Your task to perform on an android device: install app "DoorDash - Food Delivery" Image 0: 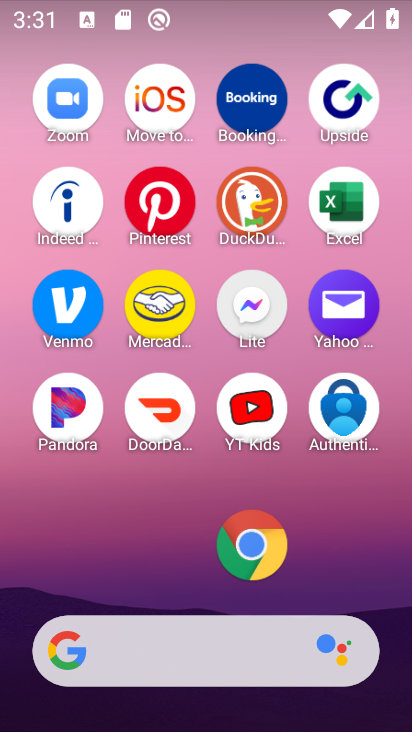
Step 0: drag from (125, 545) to (277, 0)
Your task to perform on an android device: install app "DoorDash - Food Delivery" Image 1: 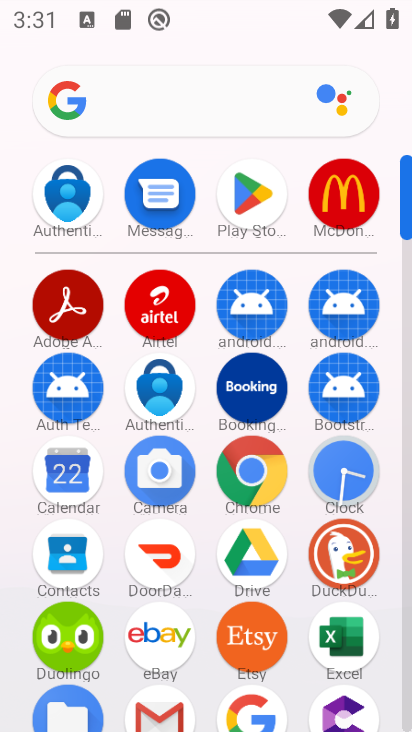
Step 1: click (253, 190)
Your task to perform on an android device: install app "DoorDash - Food Delivery" Image 2: 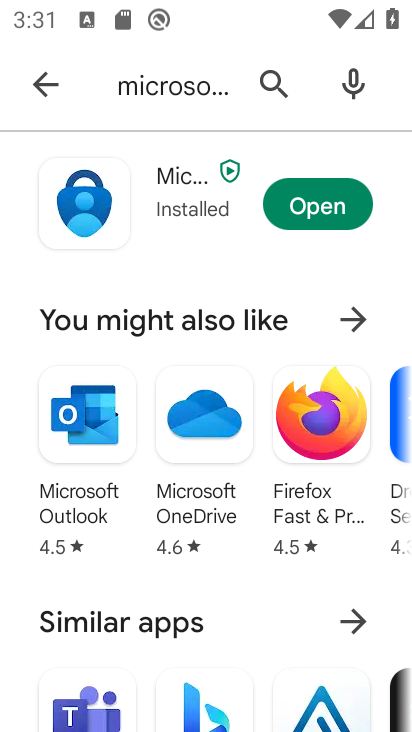
Step 2: click (270, 82)
Your task to perform on an android device: install app "DoorDash - Food Delivery" Image 3: 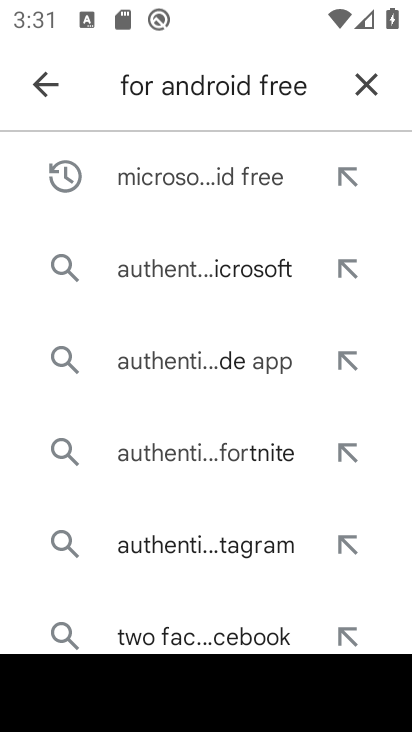
Step 3: click (371, 62)
Your task to perform on an android device: install app "DoorDash - Food Delivery" Image 4: 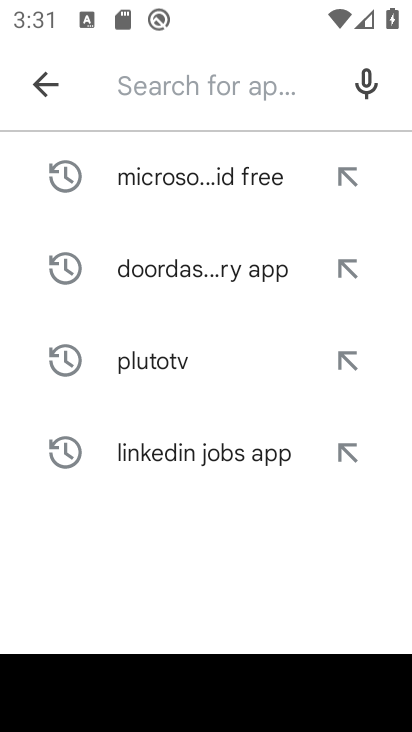
Step 4: click (156, 84)
Your task to perform on an android device: install app "DoorDash - Food Delivery" Image 5: 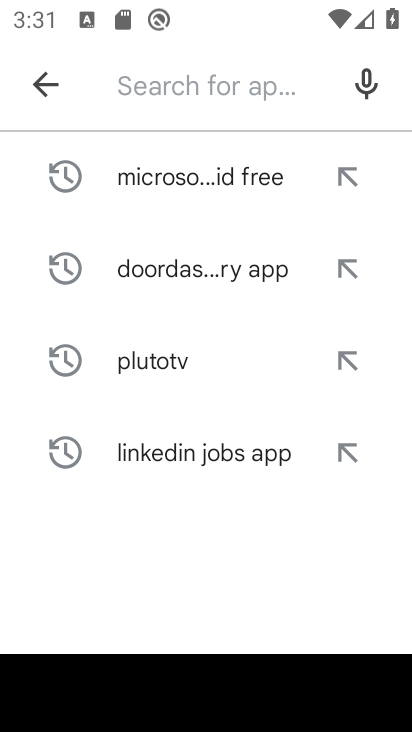
Step 5: type ""DoorDash - Food Delivery"
Your task to perform on an android device: install app "DoorDash - Food Delivery" Image 6: 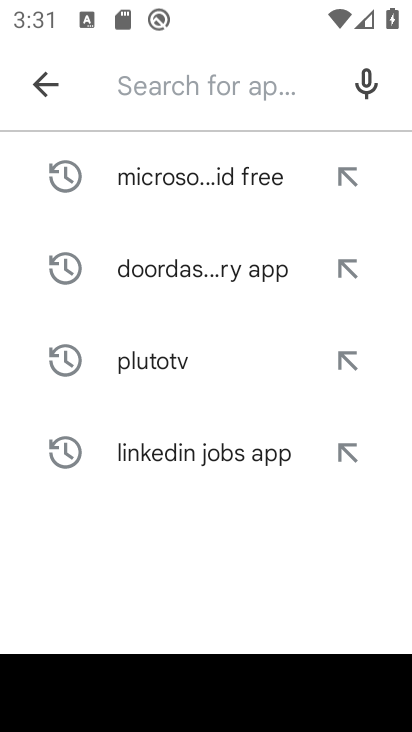
Step 6: click (234, 564)
Your task to perform on an android device: install app "DoorDash - Food Delivery" Image 7: 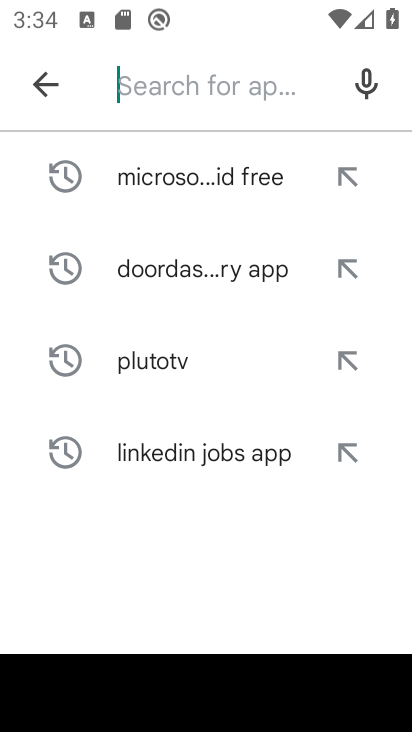
Step 7: click (159, 76)
Your task to perform on an android device: install app "DoorDash - Food Delivery" Image 8: 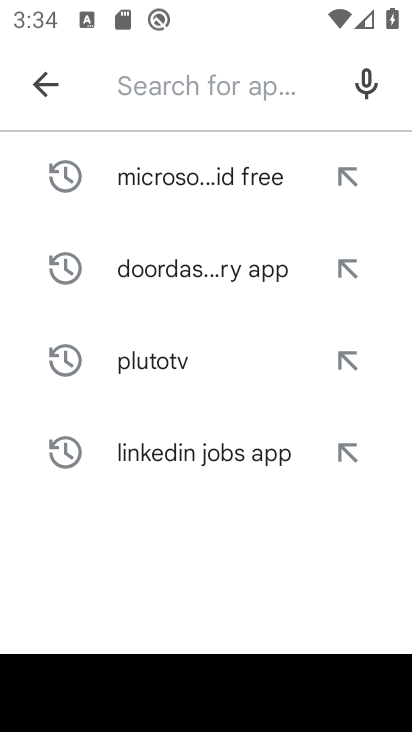
Step 8: type ""DoorDash"
Your task to perform on an android device: install app "DoorDash - Food Delivery" Image 9: 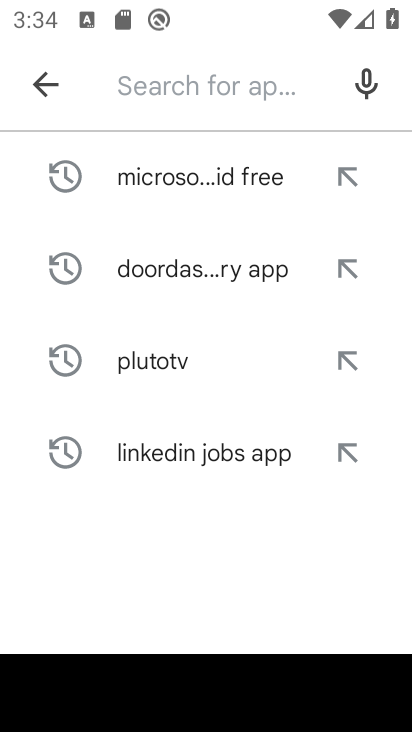
Step 9: click (127, 576)
Your task to perform on an android device: install app "DoorDash - Food Delivery" Image 10: 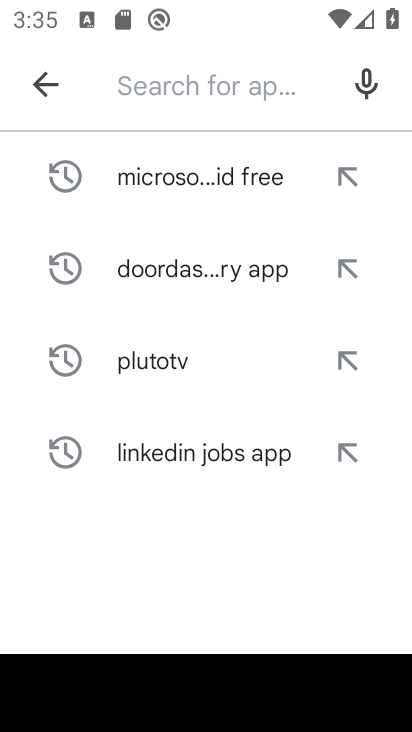
Step 10: click (185, 79)
Your task to perform on an android device: install app "DoorDash - Food Delivery" Image 11: 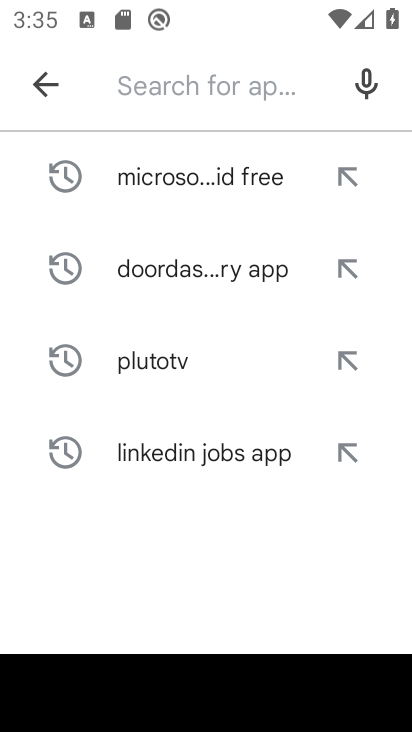
Step 11: type "DoorDash"
Your task to perform on an android device: install app "DoorDash - Food Delivery" Image 12: 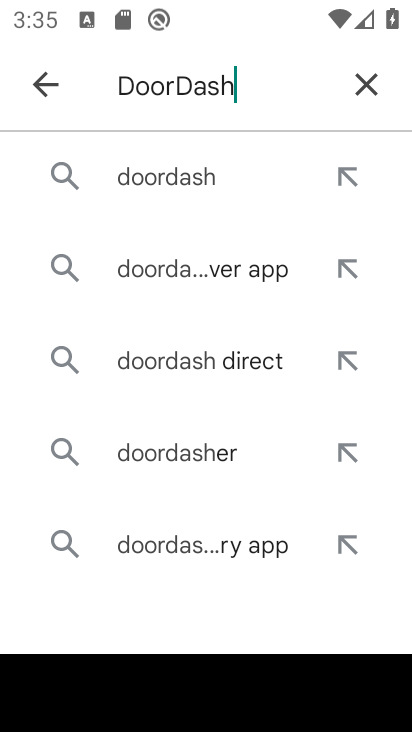
Step 12: click (127, 171)
Your task to perform on an android device: install app "DoorDash - Food Delivery" Image 13: 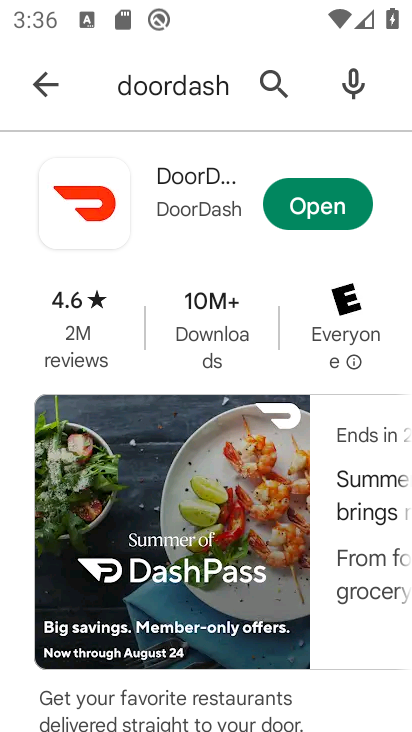
Step 13: task complete